Your task to perform on an android device: open device folders in google photos Image 0: 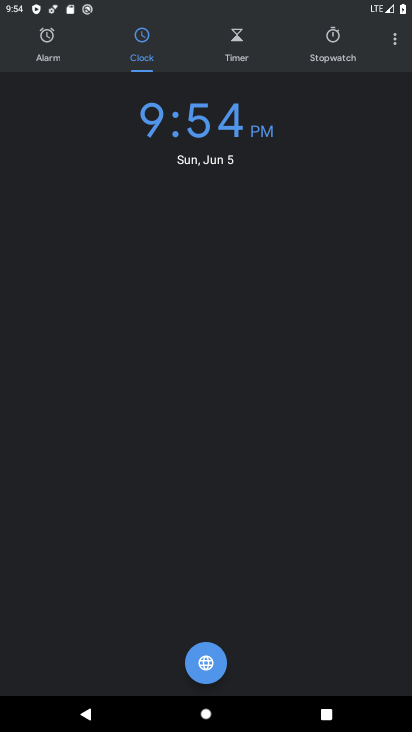
Step 0: press home button
Your task to perform on an android device: open device folders in google photos Image 1: 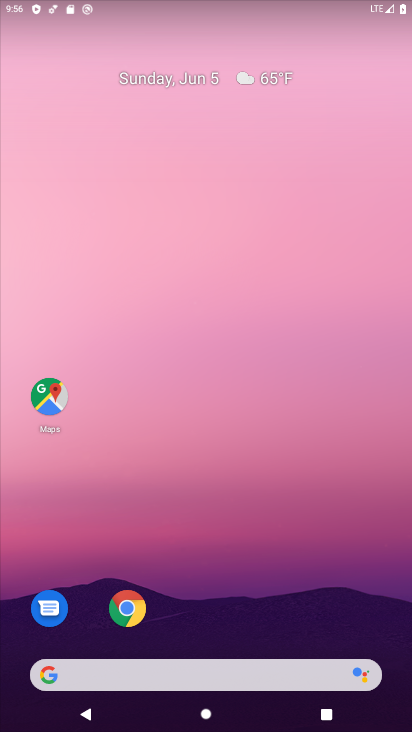
Step 1: drag from (193, 662) to (188, 281)
Your task to perform on an android device: open device folders in google photos Image 2: 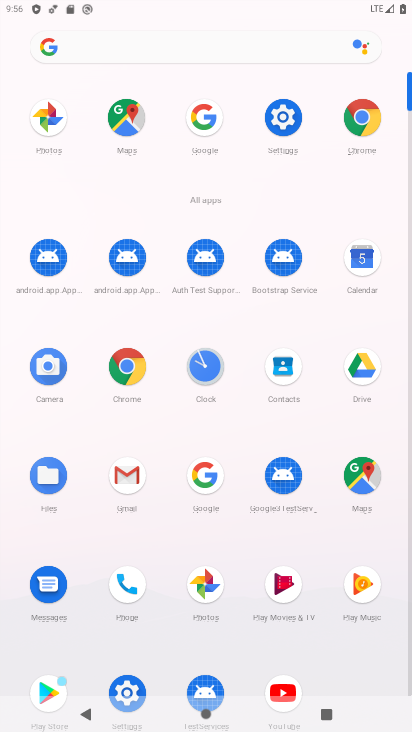
Step 2: click (228, 573)
Your task to perform on an android device: open device folders in google photos Image 3: 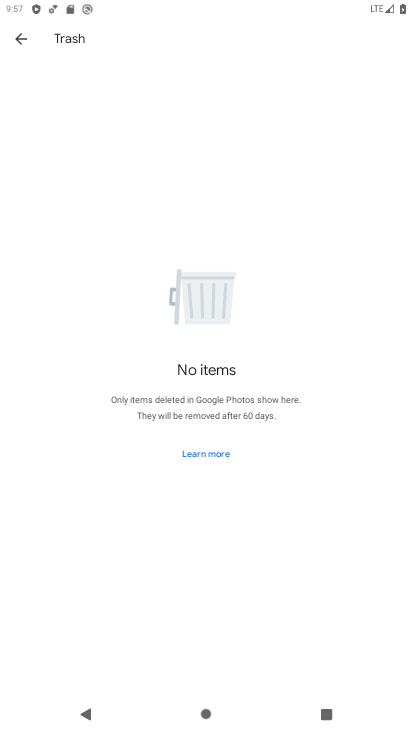
Step 3: click (18, 39)
Your task to perform on an android device: open device folders in google photos Image 4: 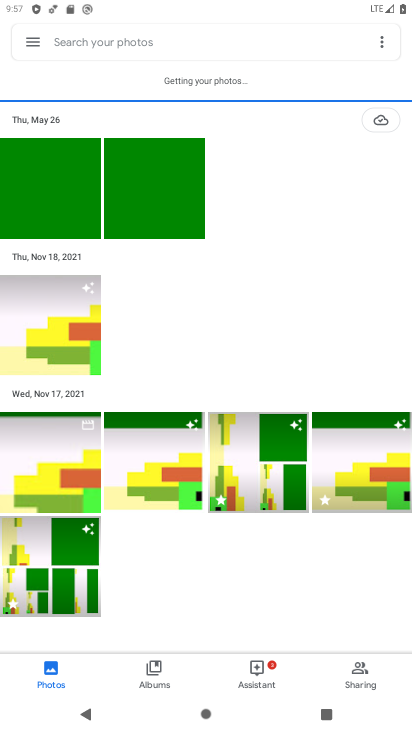
Step 4: click (159, 663)
Your task to perform on an android device: open device folders in google photos Image 5: 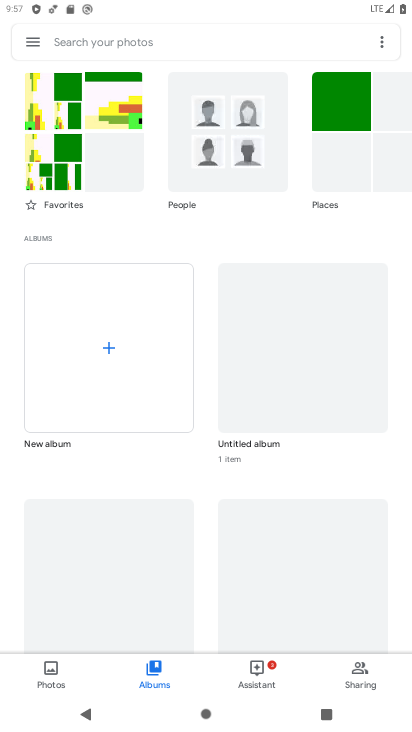
Step 5: task complete